Your task to perform on an android device: Search for pizza restaurants on Maps Image 0: 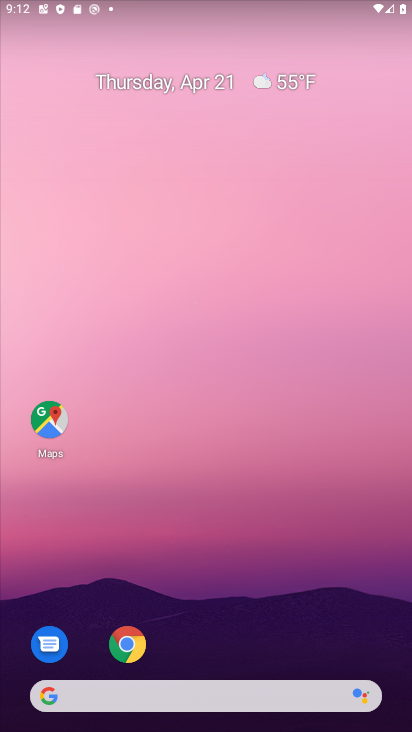
Step 0: drag from (349, 612) to (217, 91)
Your task to perform on an android device: Search for pizza restaurants on Maps Image 1: 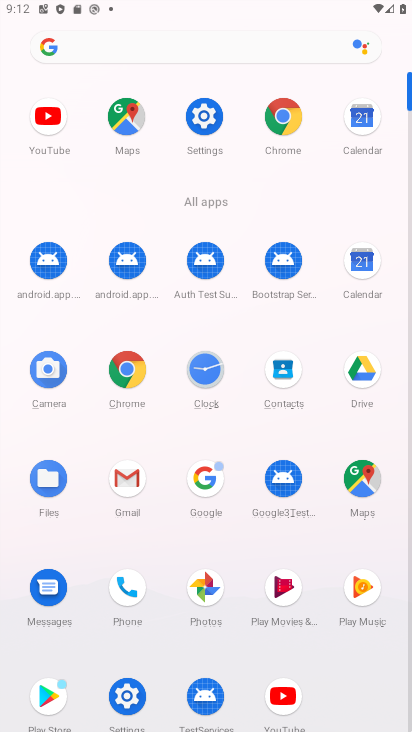
Step 1: click (124, 116)
Your task to perform on an android device: Search for pizza restaurants on Maps Image 2: 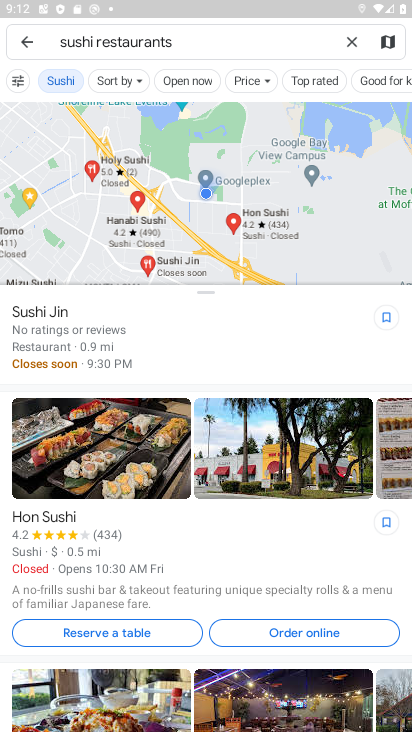
Step 2: click (286, 35)
Your task to perform on an android device: Search for pizza restaurants on Maps Image 3: 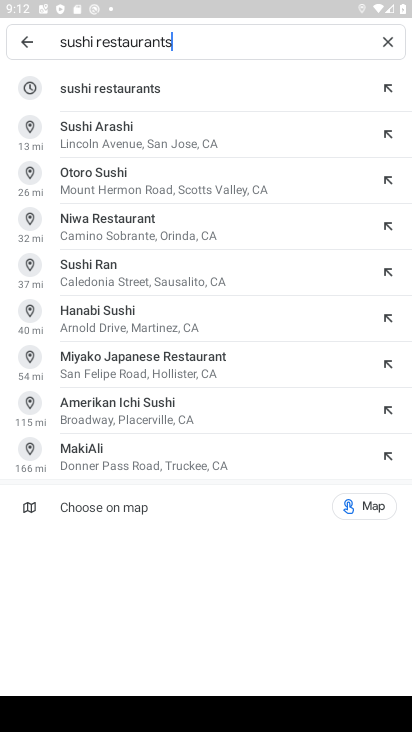
Step 3: click (386, 39)
Your task to perform on an android device: Search for pizza restaurants on Maps Image 4: 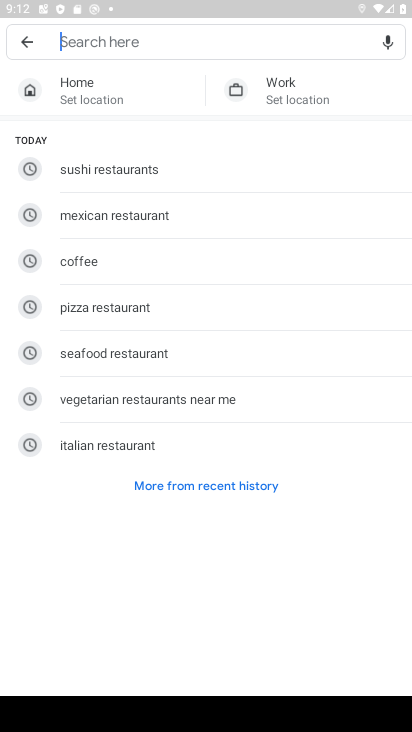
Step 4: type "pizza restaurants"
Your task to perform on an android device: Search for pizza restaurants on Maps Image 5: 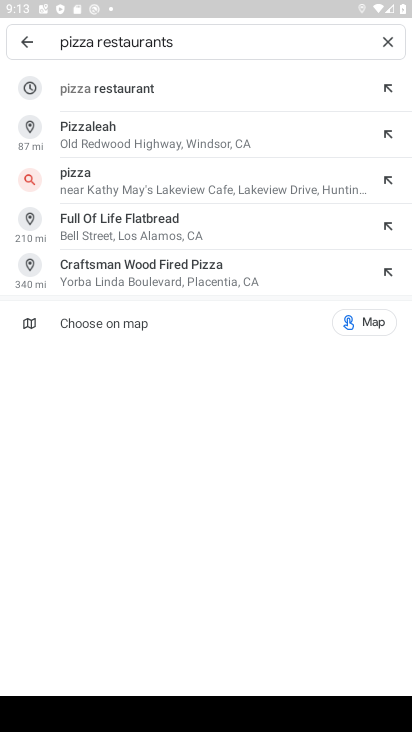
Step 5: press enter
Your task to perform on an android device: Search for pizza restaurants on Maps Image 6: 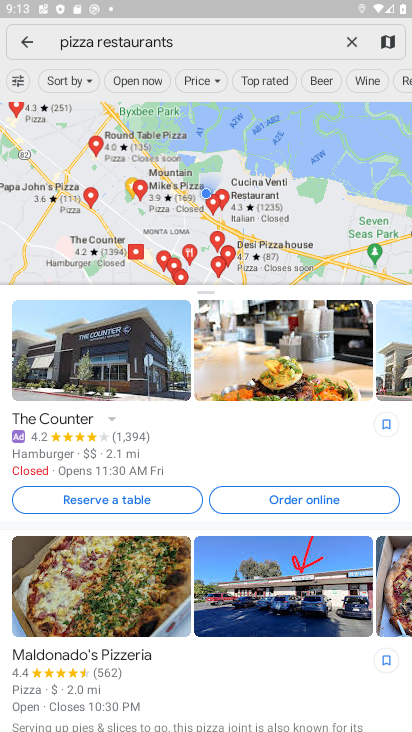
Step 6: task complete